Your task to perform on an android device: toggle airplane mode Image 0: 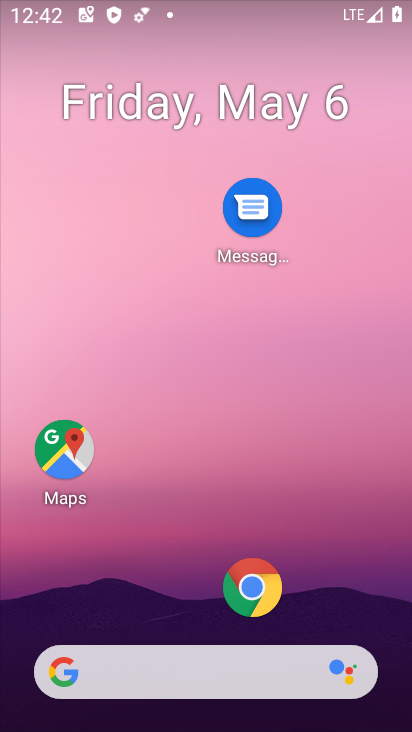
Step 0: drag from (315, 13) to (315, 664)
Your task to perform on an android device: toggle airplane mode Image 1: 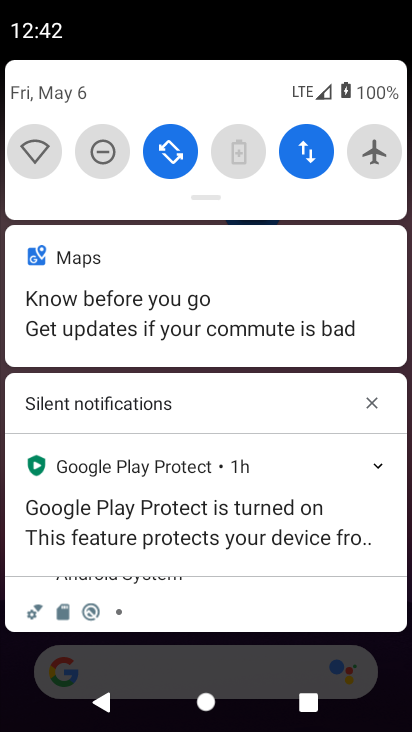
Step 1: click (367, 160)
Your task to perform on an android device: toggle airplane mode Image 2: 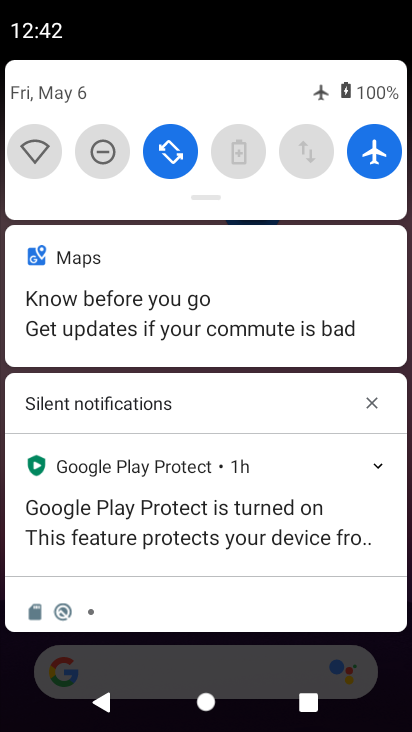
Step 2: task complete